Your task to perform on an android device: check storage Image 0: 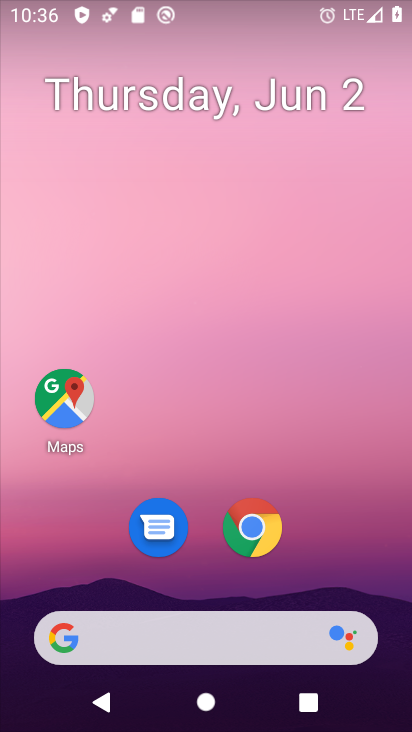
Step 0: drag from (243, 592) to (207, 11)
Your task to perform on an android device: check storage Image 1: 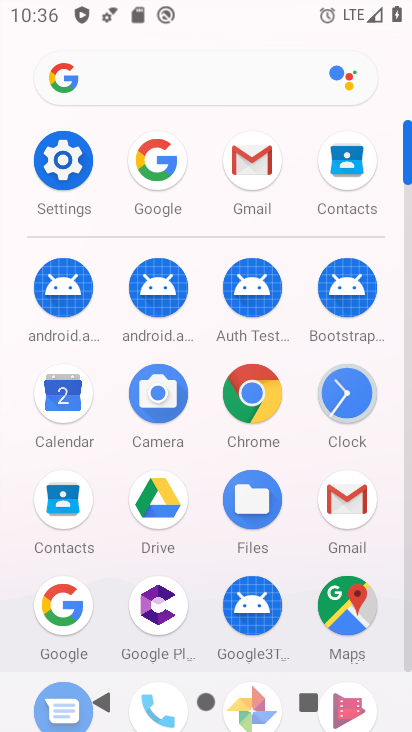
Step 1: click (59, 169)
Your task to perform on an android device: check storage Image 2: 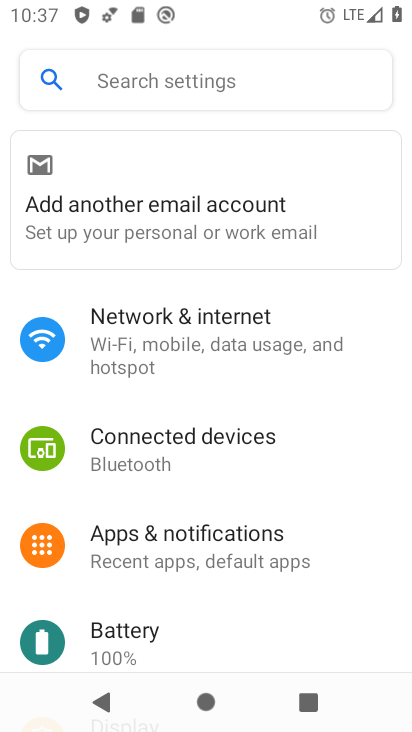
Step 2: drag from (199, 484) to (161, 4)
Your task to perform on an android device: check storage Image 3: 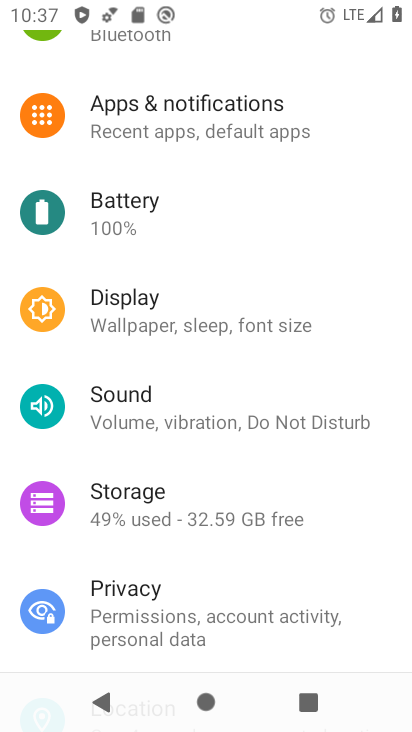
Step 3: click (142, 522)
Your task to perform on an android device: check storage Image 4: 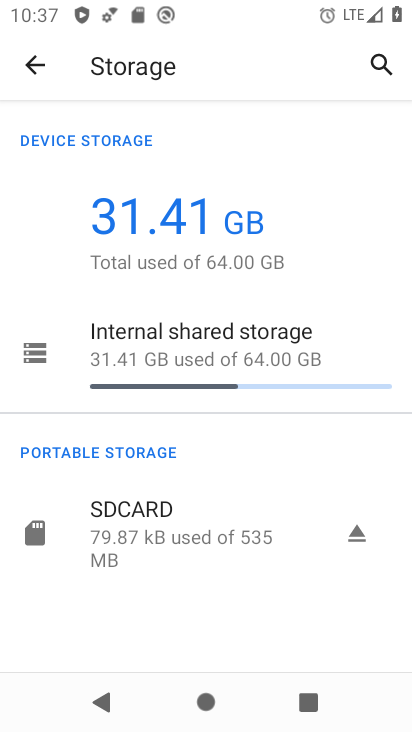
Step 4: task complete